Your task to perform on an android device: Open Reddit.com Image 0: 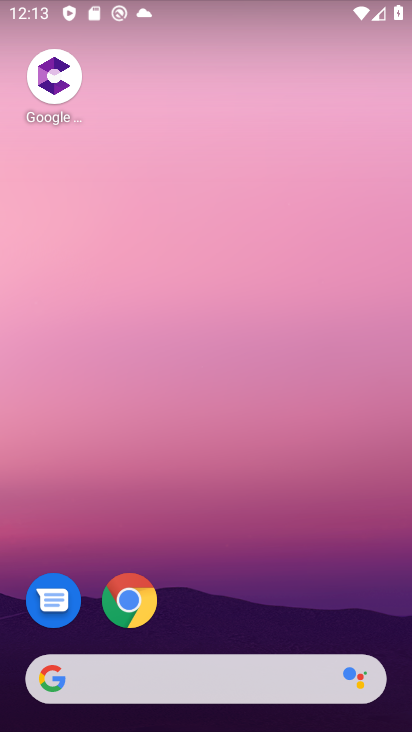
Step 0: click (125, 622)
Your task to perform on an android device: Open Reddit.com Image 1: 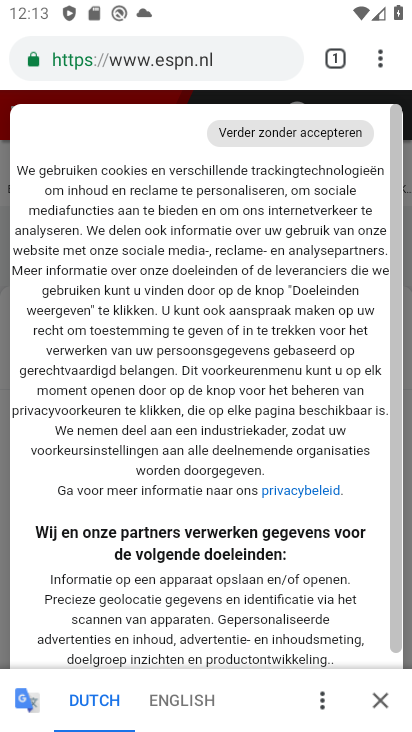
Step 1: click (204, 60)
Your task to perform on an android device: Open Reddit.com Image 2: 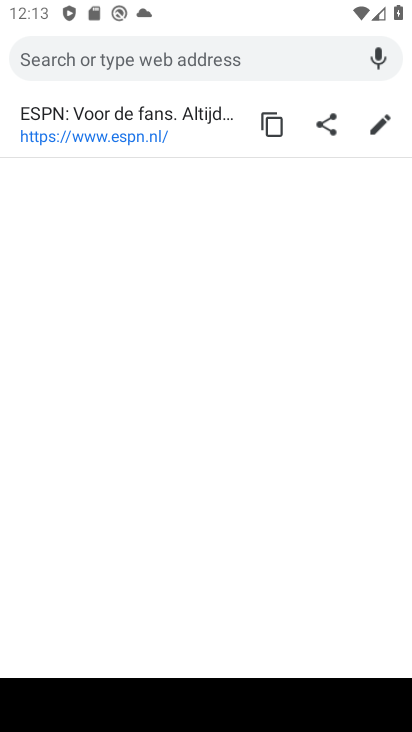
Step 2: type "reddit.com"
Your task to perform on an android device: Open Reddit.com Image 3: 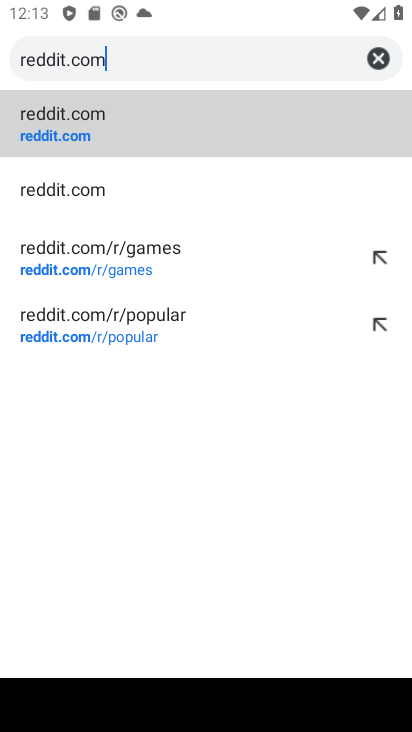
Step 3: click (77, 124)
Your task to perform on an android device: Open Reddit.com Image 4: 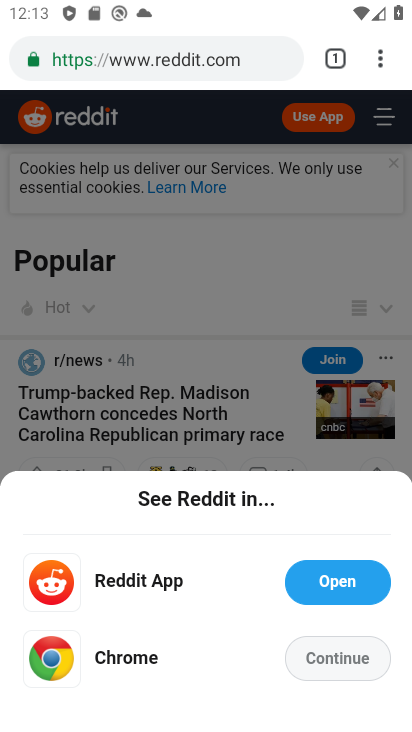
Step 4: click (351, 650)
Your task to perform on an android device: Open Reddit.com Image 5: 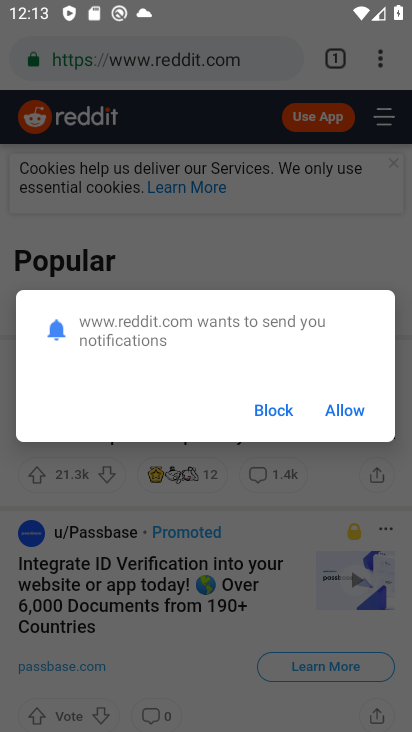
Step 5: task complete